Your task to perform on an android device: allow cookies in the chrome app Image 0: 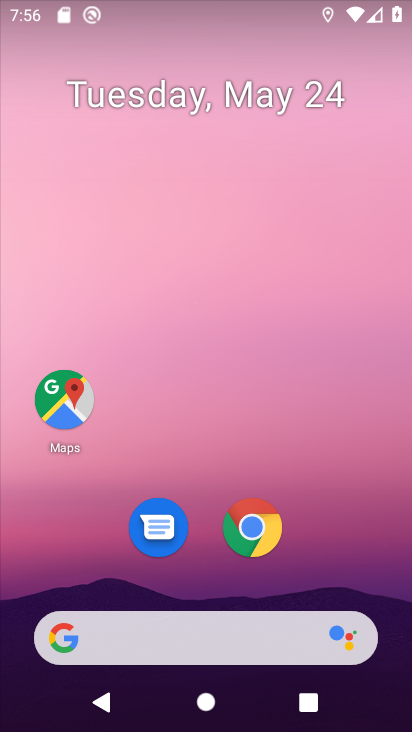
Step 0: click (252, 520)
Your task to perform on an android device: allow cookies in the chrome app Image 1: 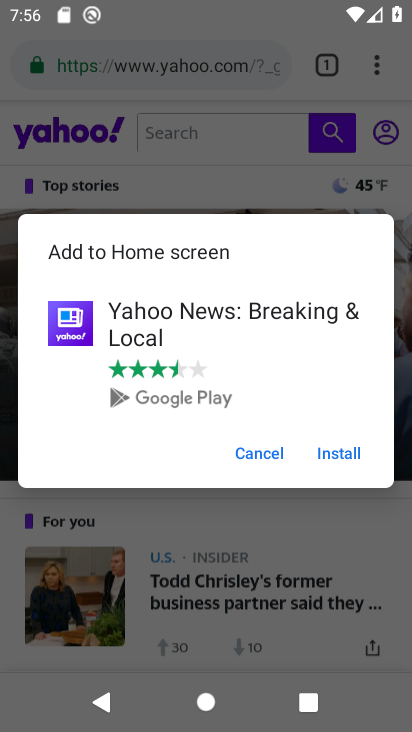
Step 1: click (235, 449)
Your task to perform on an android device: allow cookies in the chrome app Image 2: 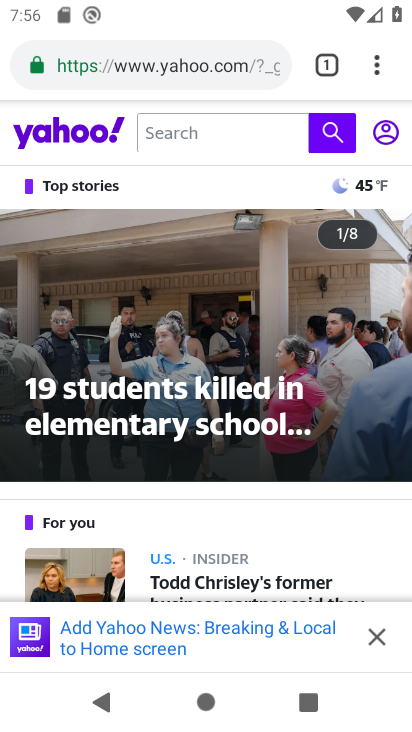
Step 2: click (378, 57)
Your task to perform on an android device: allow cookies in the chrome app Image 3: 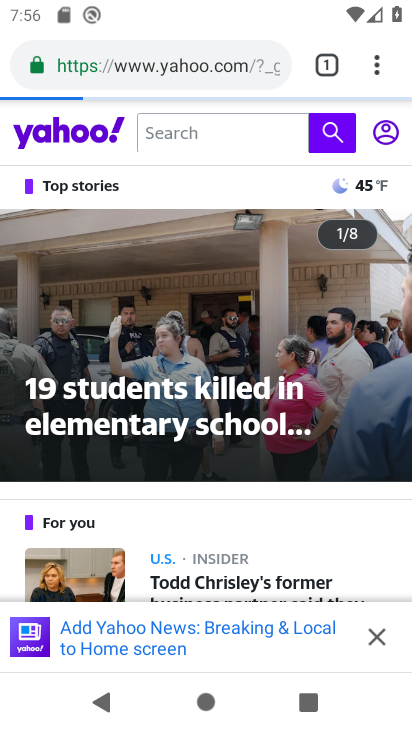
Step 3: drag from (375, 58) to (161, 302)
Your task to perform on an android device: allow cookies in the chrome app Image 4: 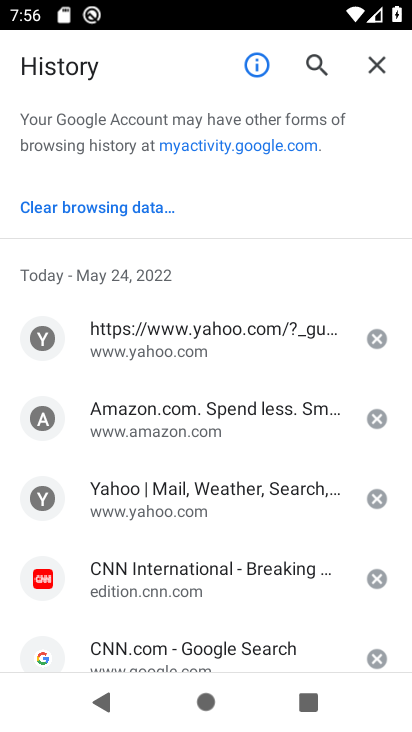
Step 4: click (123, 211)
Your task to perform on an android device: allow cookies in the chrome app Image 5: 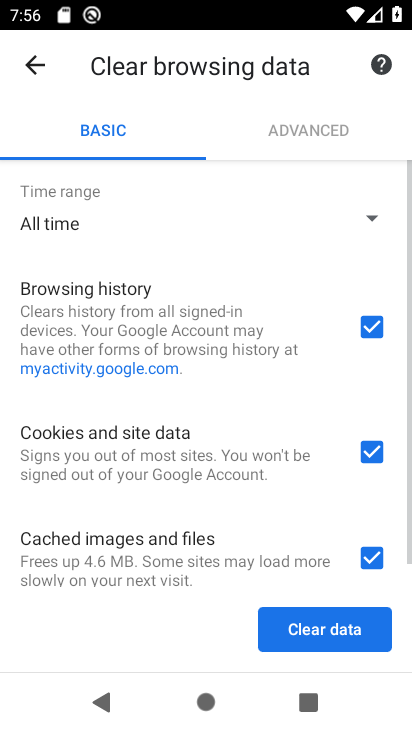
Step 5: click (328, 646)
Your task to perform on an android device: allow cookies in the chrome app Image 6: 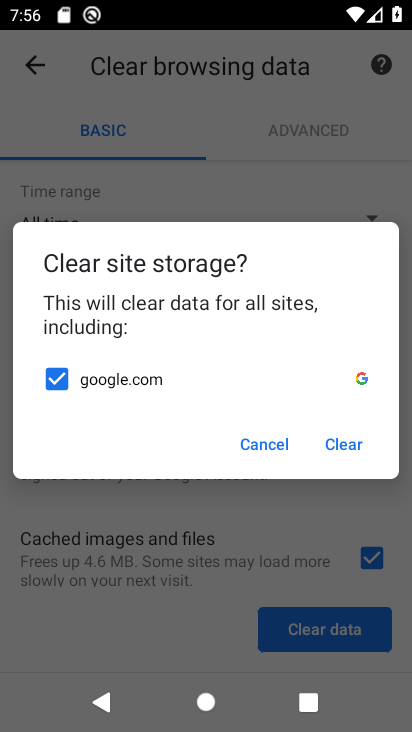
Step 6: click (334, 451)
Your task to perform on an android device: allow cookies in the chrome app Image 7: 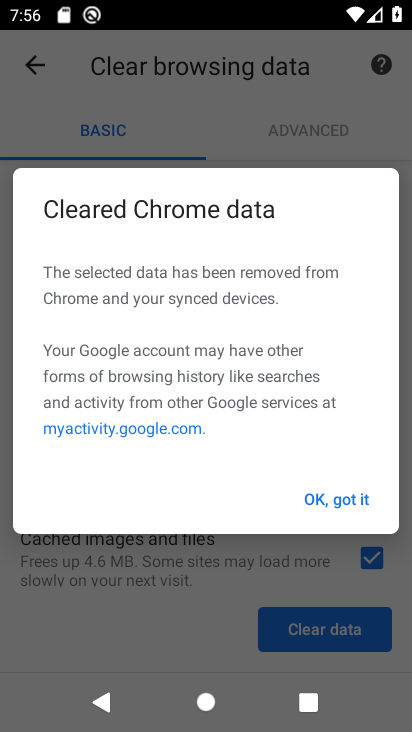
Step 7: task complete